Your task to perform on an android device: add a contact in the contacts app Image 0: 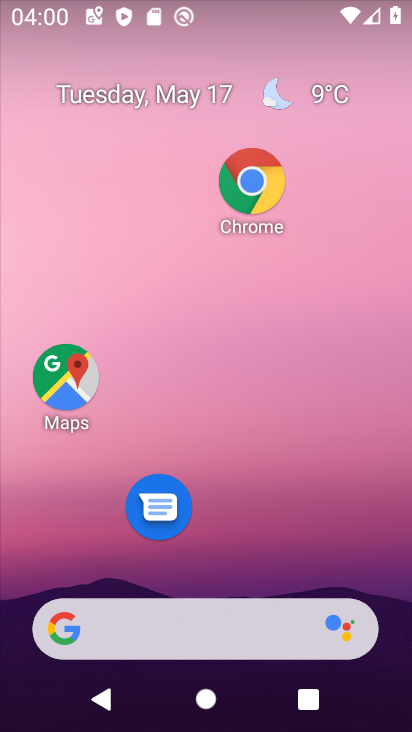
Step 0: drag from (209, 567) to (82, 10)
Your task to perform on an android device: add a contact in the contacts app Image 1: 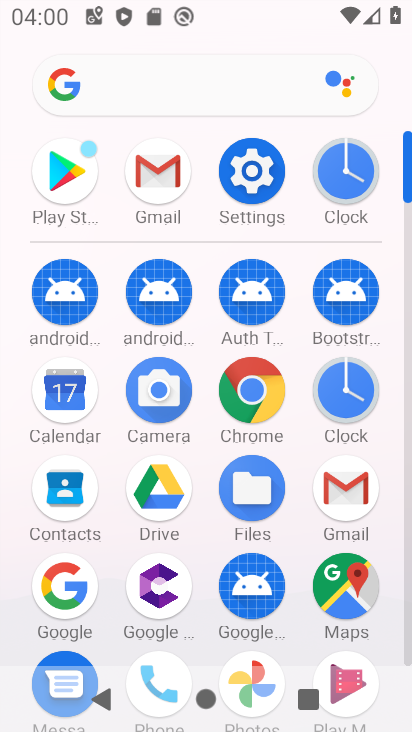
Step 1: click (61, 490)
Your task to perform on an android device: add a contact in the contacts app Image 2: 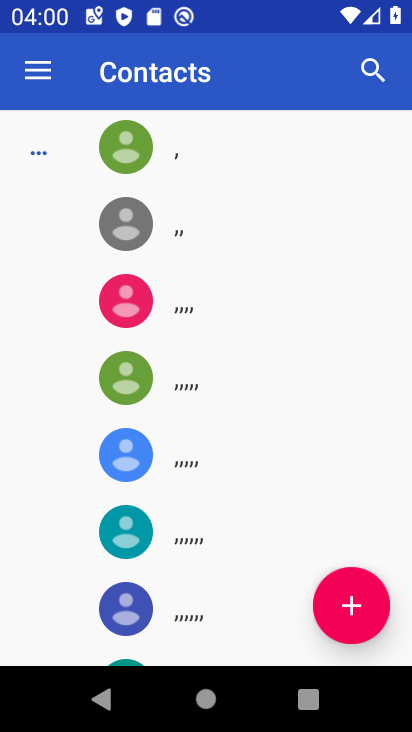
Step 2: click (345, 611)
Your task to perform on an android device: add a contact in the contacts app Image 3: 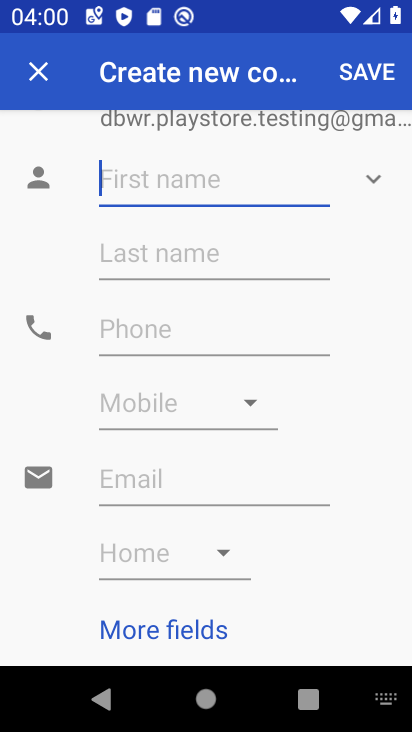
Step 3: type "po"
Your task to perform on an android device: add a contact in the contacts app Image 4: 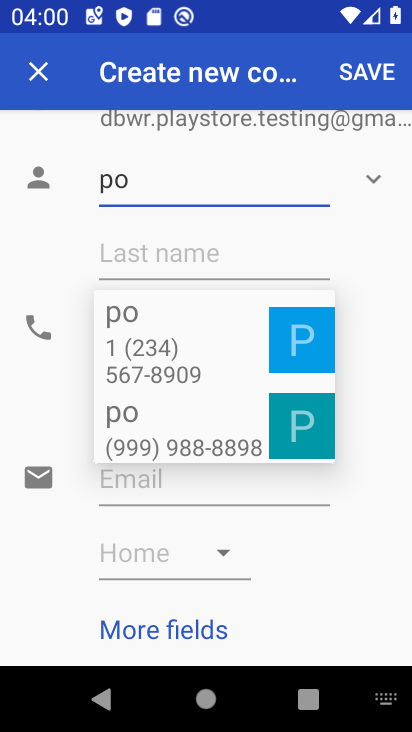
Step 4: type "iy"
Your task to perform on an android device: add a contact in the contacts app Image 5: 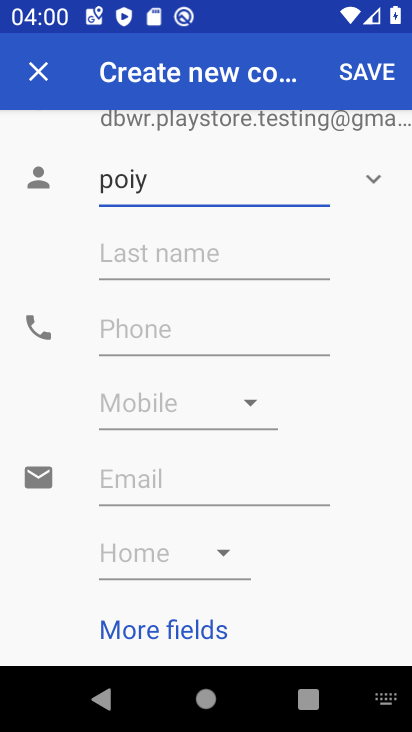
Step 5: click (129, 334)
Your task to perform on an android device: add a contact in the contacts app Image 6: 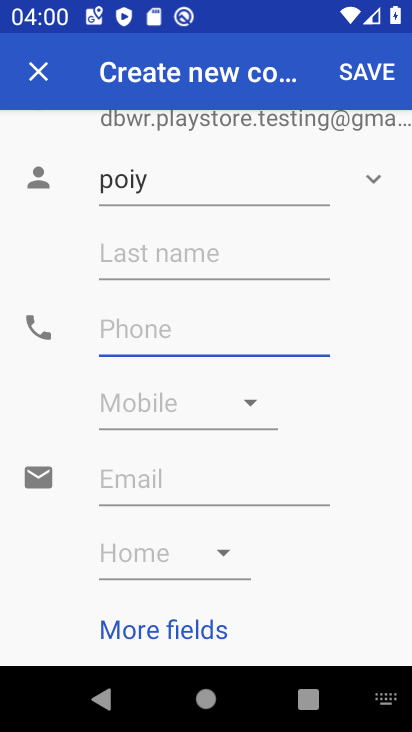
Step 6: type "9876545678"
Your task to perform on an android device: add a contact in the contacts app Image 7: 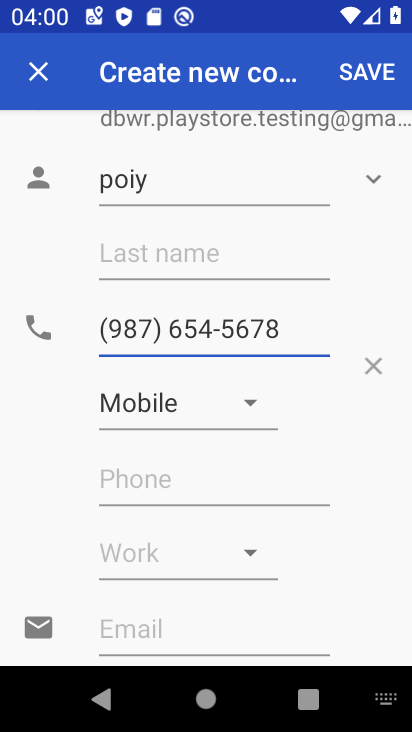
Step 7: click (357, 82)
Your task to perform on an android device: add a contact in the contacts app Image 8: 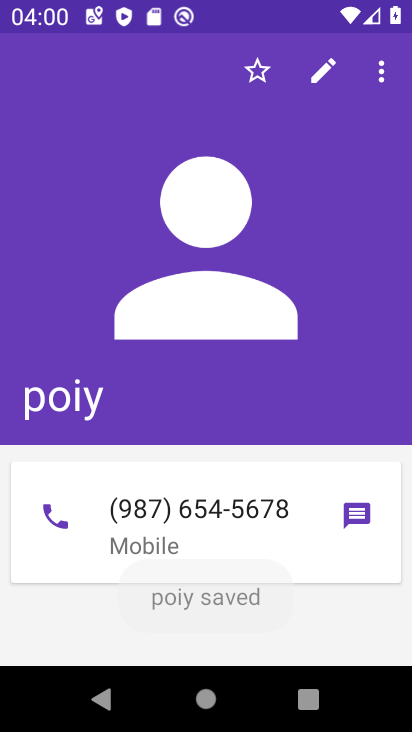
Step 8: task complete